Your task to perform on an android device: turn on sleep mode Image 0: 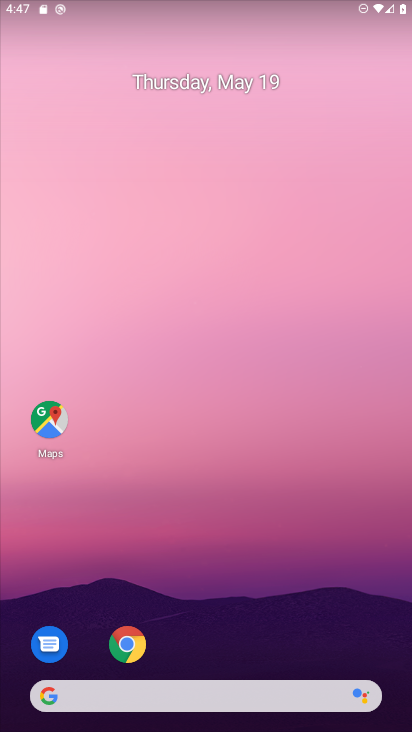
Step 0: drag from (299, 612) to (346, 123)
Your task to perform on an android device: turn on sleep mode Image 1: 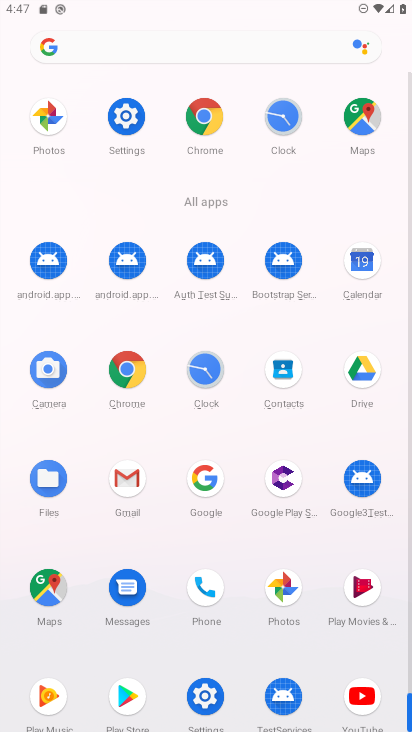
Step 1: click (207, 694)
Your task to perform on an android device: turn on sleep mode Image 2: 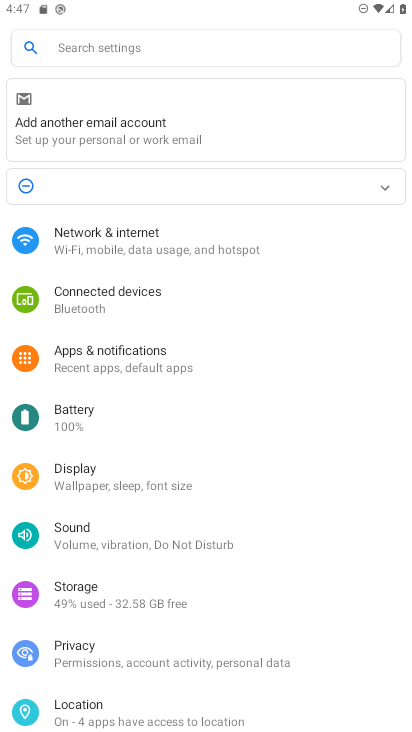
Step 2: click (166, 470)
Your task to perform on an android device: turn on sleep mode Image 3: 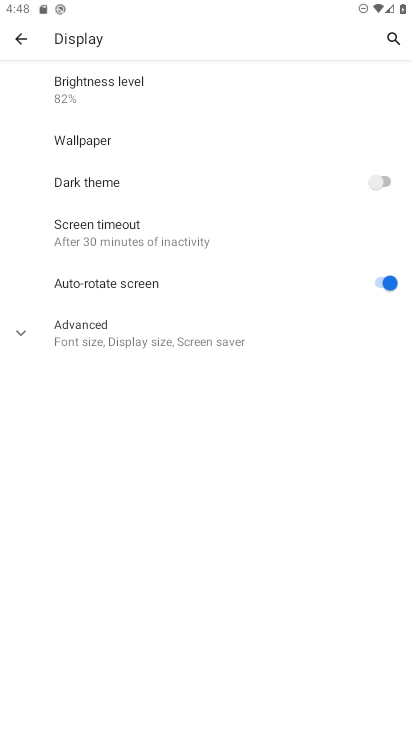
Step 3: click (160, 342)
Your task to perform on an android device: turn on sleep mode Image 4: 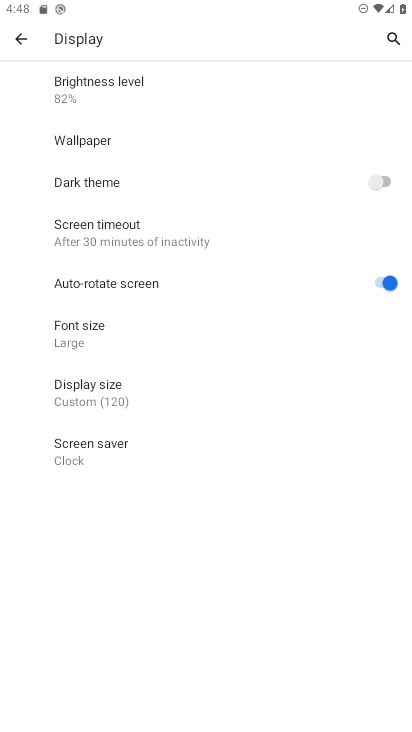
Step 4: task complete